Your task to perform on an android device: Check the weather Image 0: 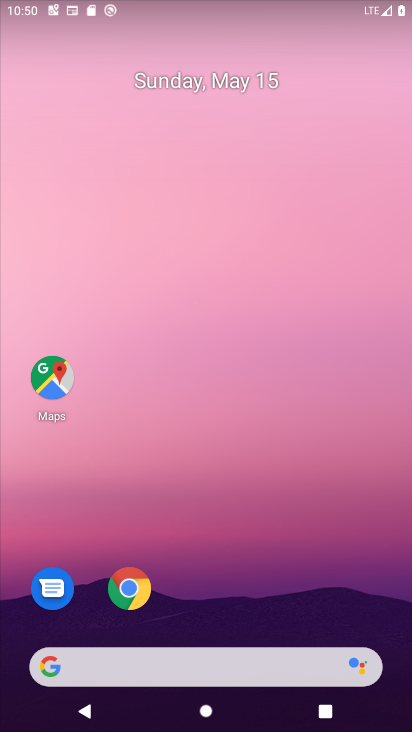
Step 0: drag from (258, 448) to (299, 66)
Your task to perform on an android device: Check the weather Image 1: 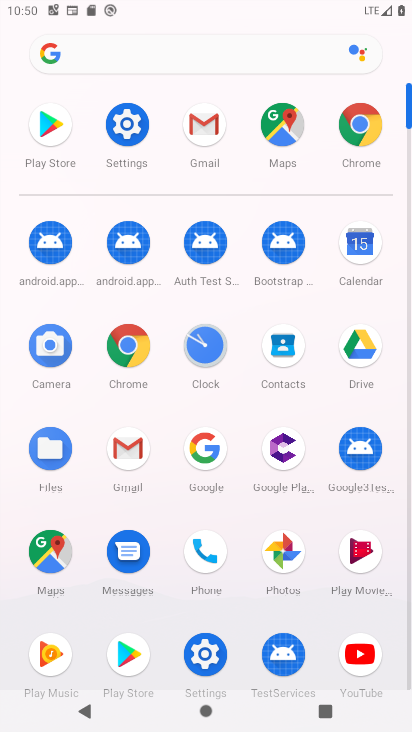
Step 1: click (204, 451)
Your task to perform on an android device: Check the weather Image 2: 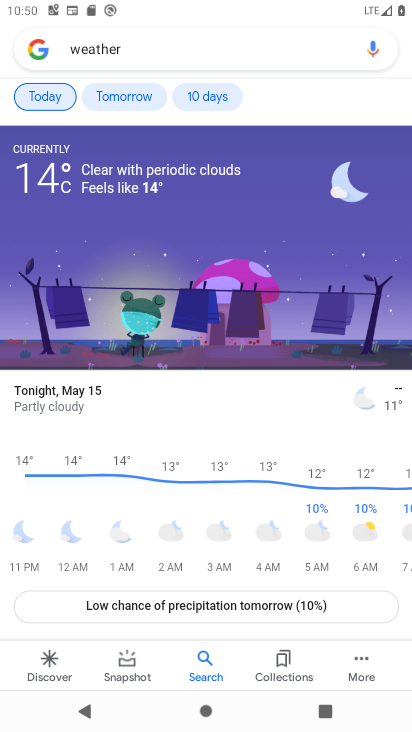
Step 2: task complete